Your task to perform on an android device: Go to Android settings Image 0: 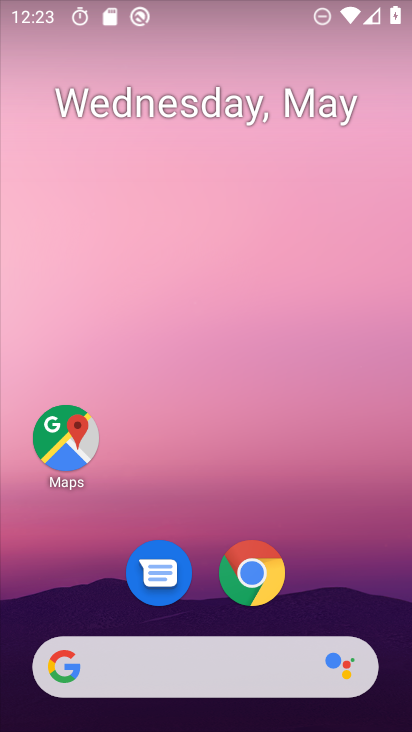
Step 0: drag from (359, 584) to (249, 13)
Your task to perform on an android device: Go to Android settings Image 1: 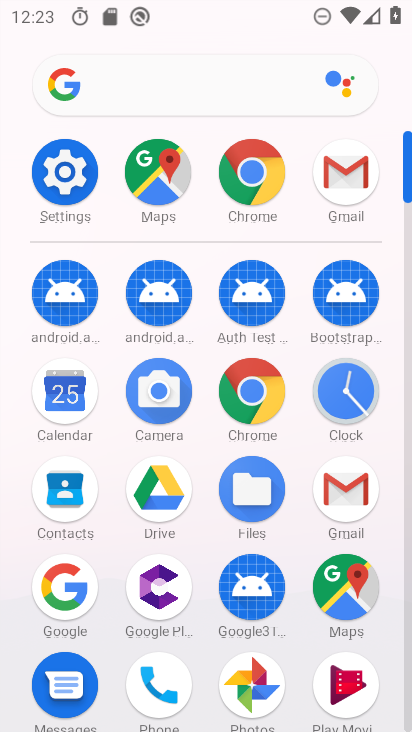
Step 1: drag from (13, 582) to (18, 186)
Your task to perform on an android device: Go to Android settings Image 2: 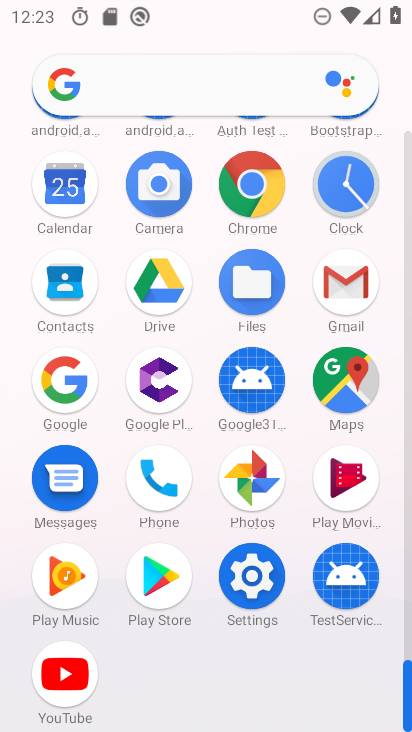
Step 2: click (252, 575)
Your task to perform on an android device: Go to Android settings Image 3: 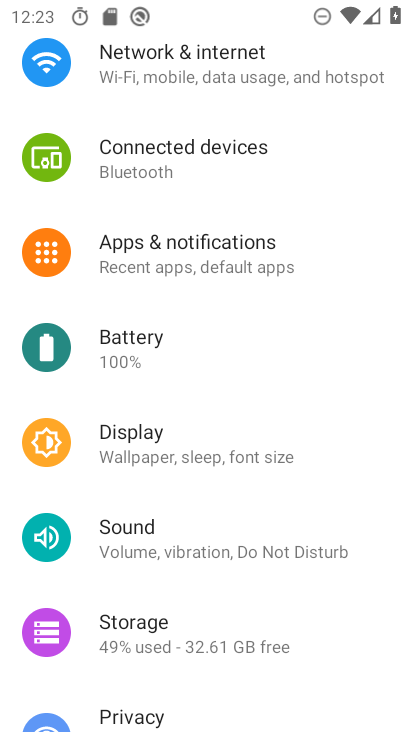
Step 3: task complete